Your task to perform on an android device: Open calendar and show me the second week of next month Image 0: 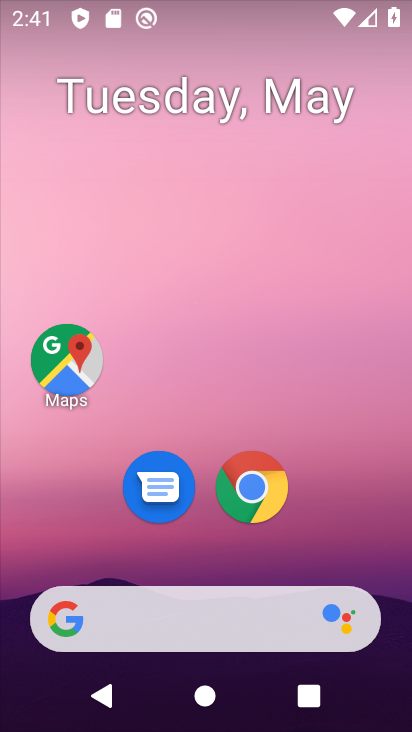
Step 0: drag from (178, 579) to (375, 78)
Your task to perform on an android device: Open calendar and show me the second week of next month Image 1: 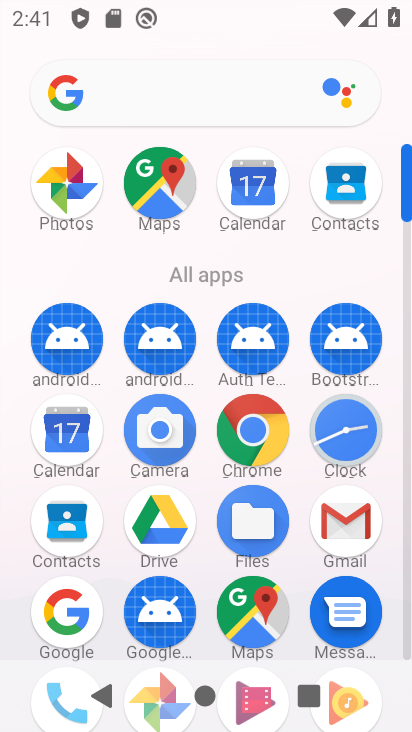
Step 1: click (84, 425)
Your task to perform on an android device: Open calendar and show me the second week of next month Image 2: 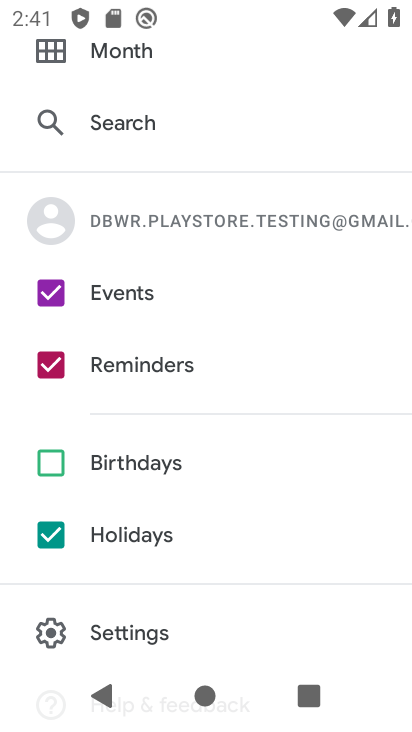
Step 2: press back button
Your task to perform on an android device: Open calendar and show me the second week of next month Image 3: 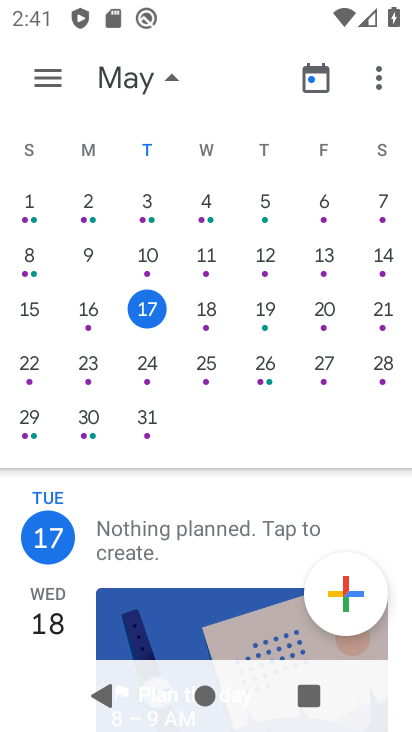
Step 3: click (166, 75)
Your task to perform on an android device: Open calendar and show me the second week of next month Image 4: 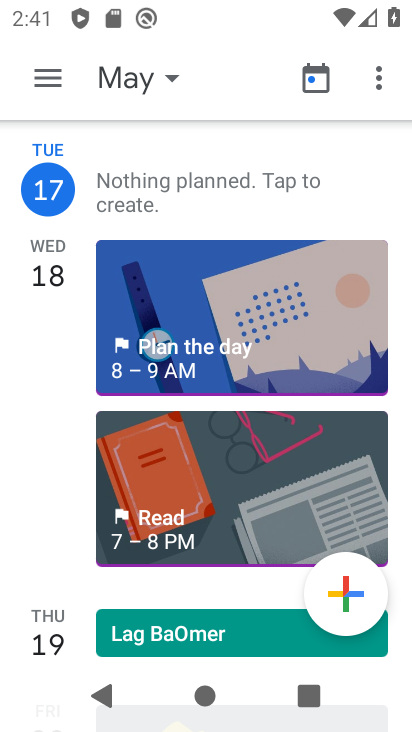
Step 4: click (165, 80)
Your task to perform on an android device: Open calendar and show me the second week of next month Image 5: 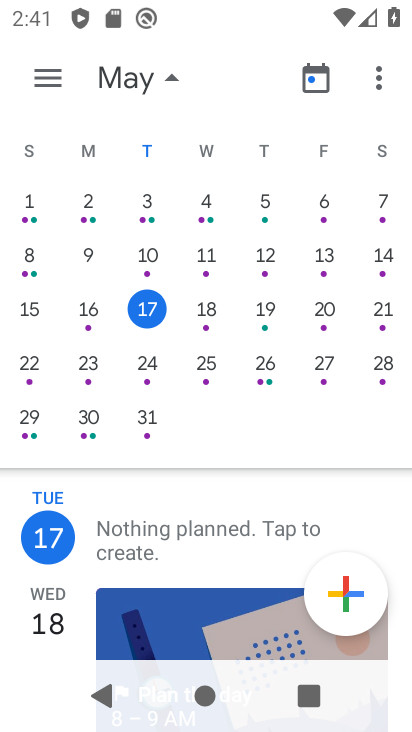
Step 5: drag from (355, 363) to (6, 354)
Your task to perform on an android device: Open calendar and show me the second week of next month Image 6: 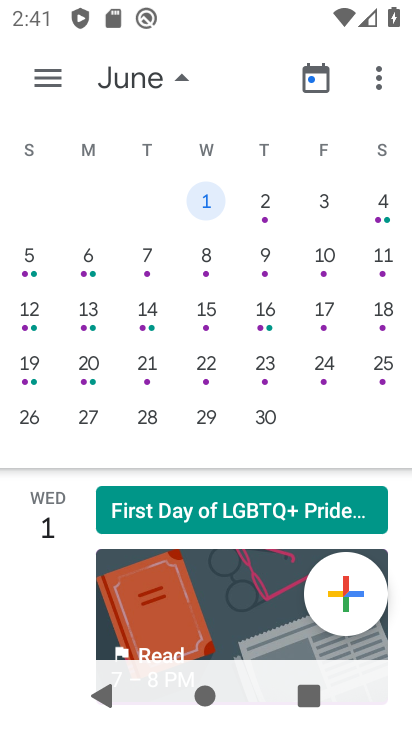
Step 6: click (36, 324)
Your task to perform on an android device: Open calendar and show me the second week of next month Image 7: 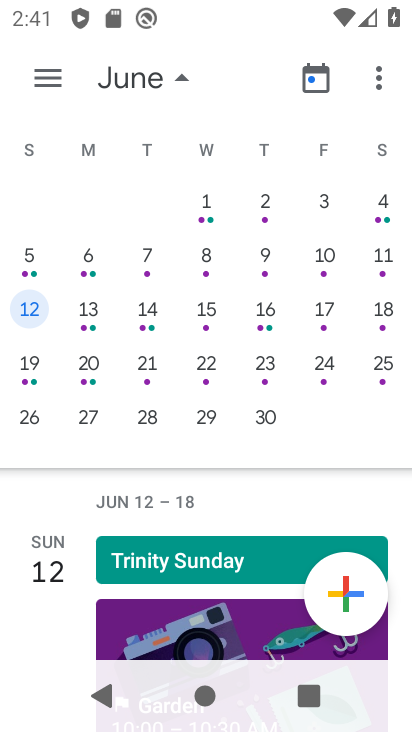
Step 7: click (42, 72)
Your task to perform on an android device: Open calendar and show me the second week of next month Image 8: 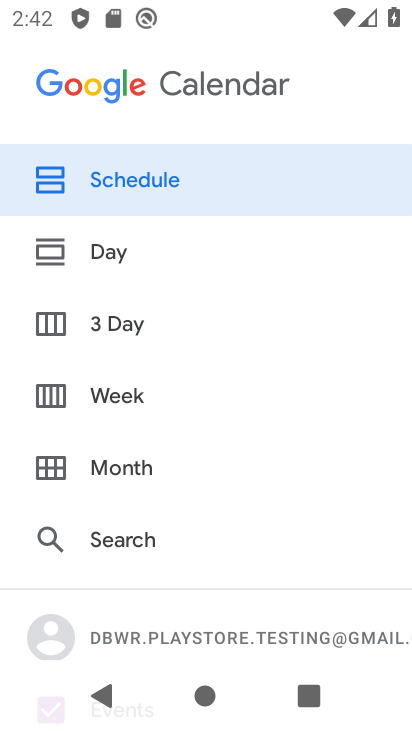
Step 8: click (149, 402)
Your task to perform on an android device: Open calendar and show me the second week of next month Image 9: 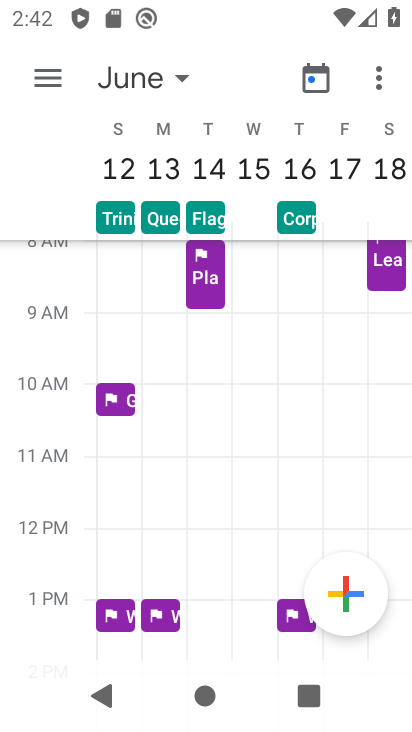
Step 9: task complete